Your task to perform on an android device: Add logitech g pro to the cart on ebay.com, then select checkout. Image 0: 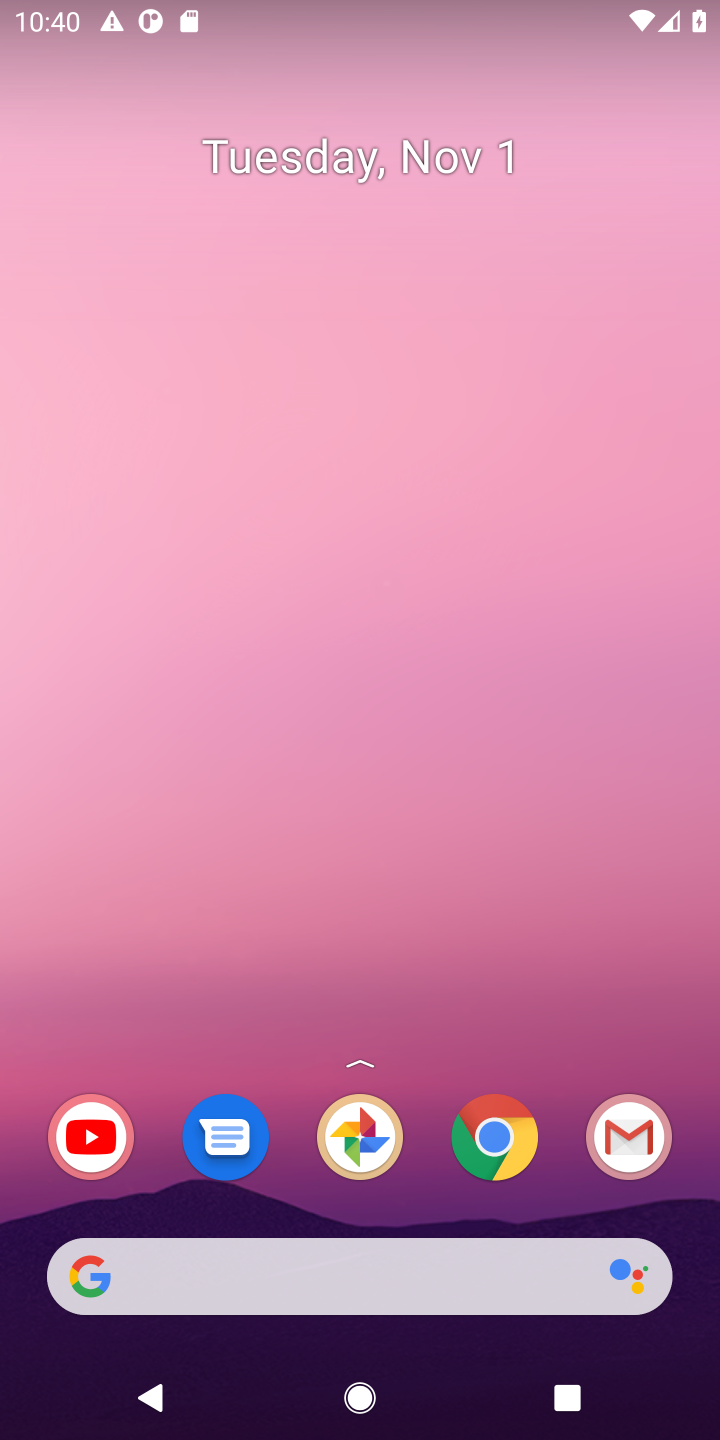
Step 0: click (374, 1263)
Your task to perform on an android device: Add logitech g pro to the cart on ebay.com, then select checkout. Image 1: 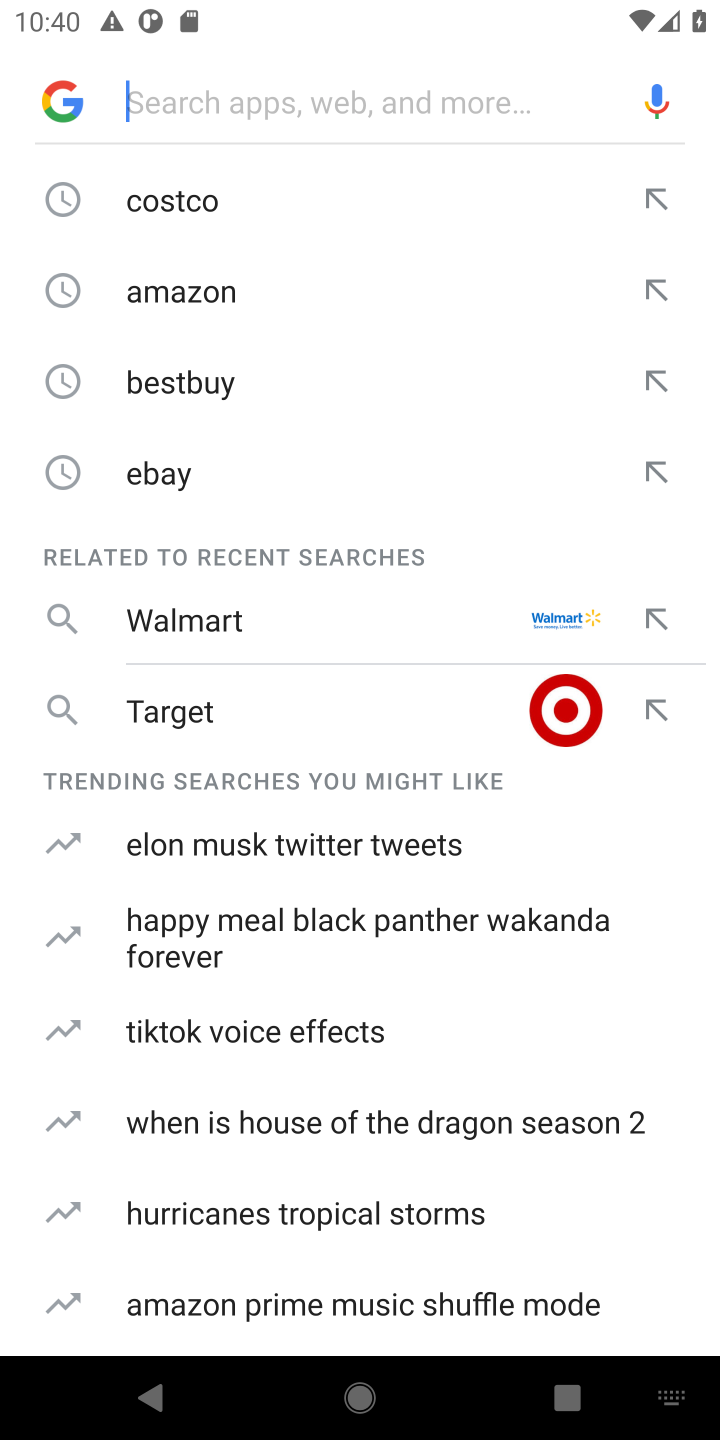
Step 1: click (160, 475)
Your task to perform on an android device: Add logitech g pro to the cart on ebay.com, then select checkout. Image 2: 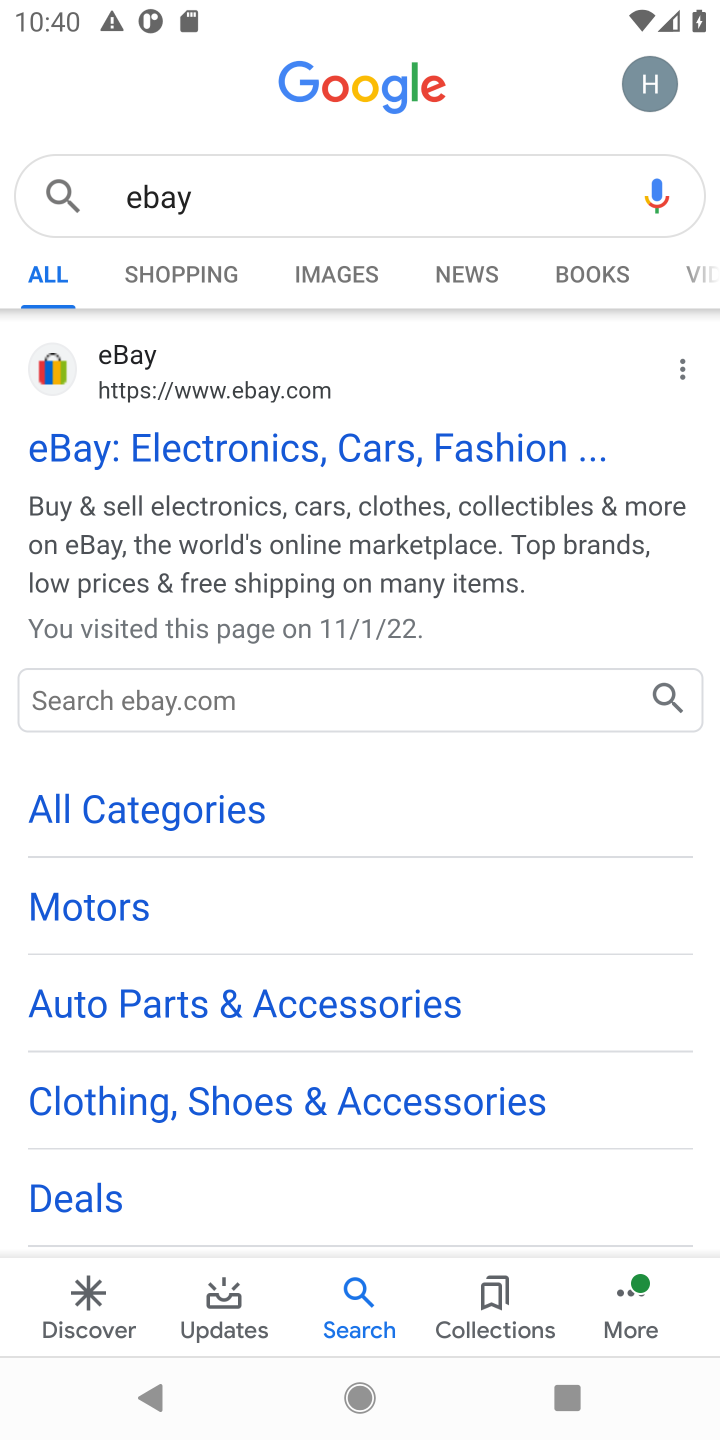
Step 2: click (131, 379)
Your task to perform on an android device: Add logitech g pro to the cart on ebay.com, then select checkout. Image 3: 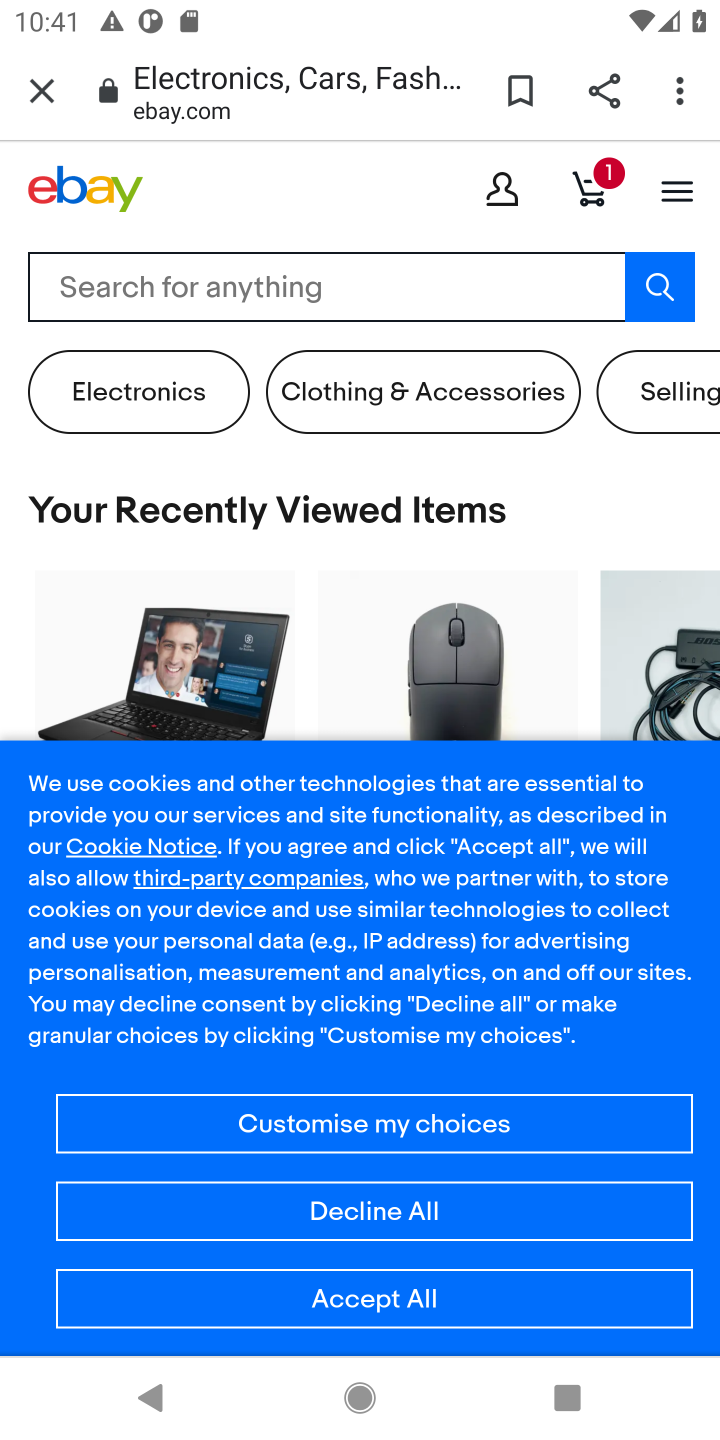
Step 3: click (367, 1202)
Your task to perform on an android device: Add logitech g pro to the cart on ebay.com, then select checkout. Image 4: 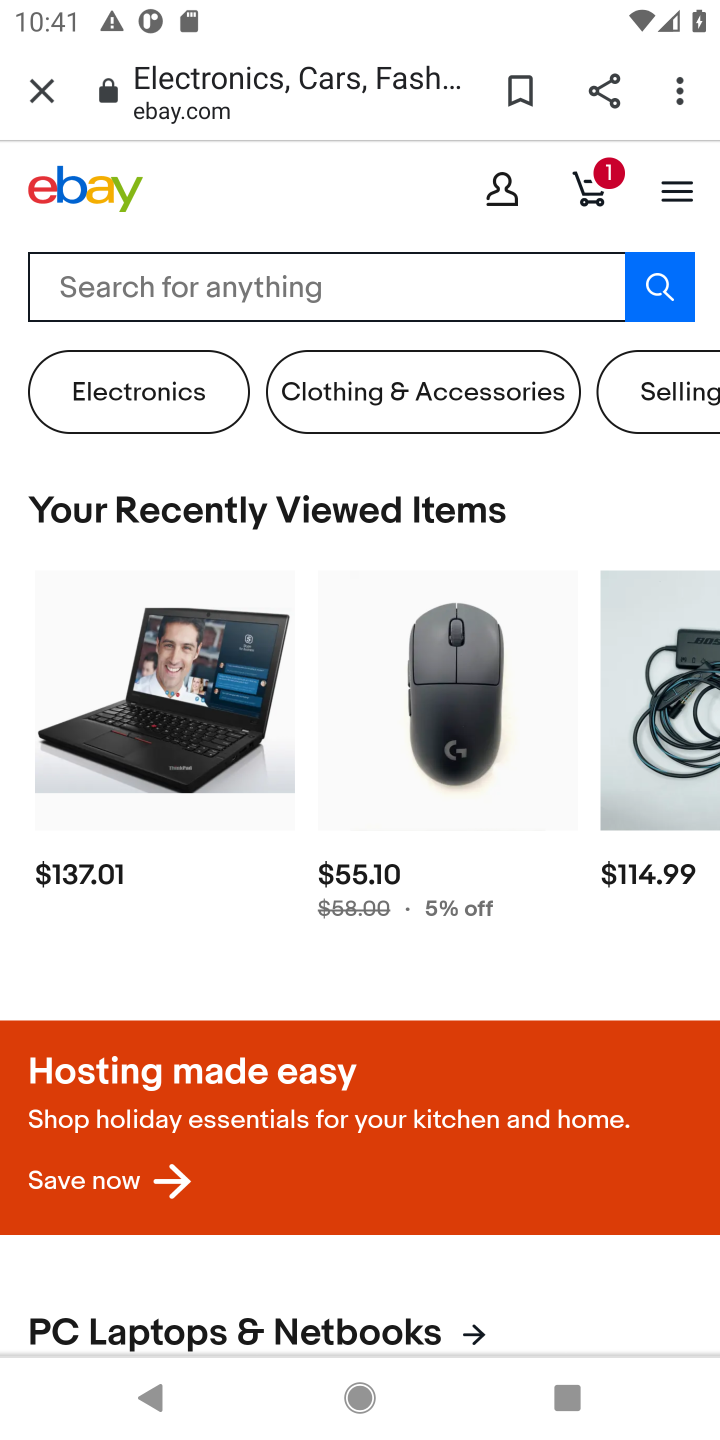
Step 4: click (228, 267)
Your task to perform on an android device: Add logitech g pro to the cart on ebay.com, then select checkout. Image 5: 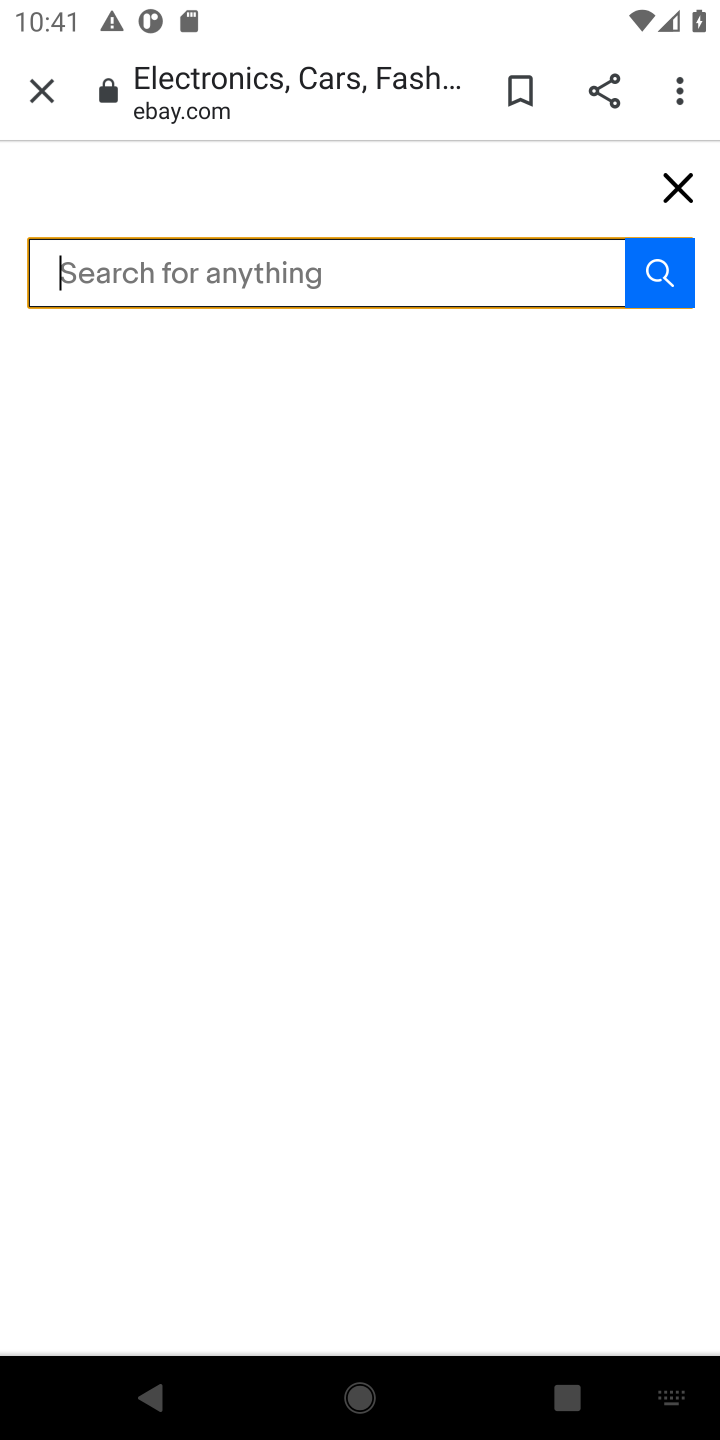
Step 5: type " logitech g pro "
Your task to perform on an android device: Add logitech g pro to the cart on ebay.com, then select checkout. Image 6: 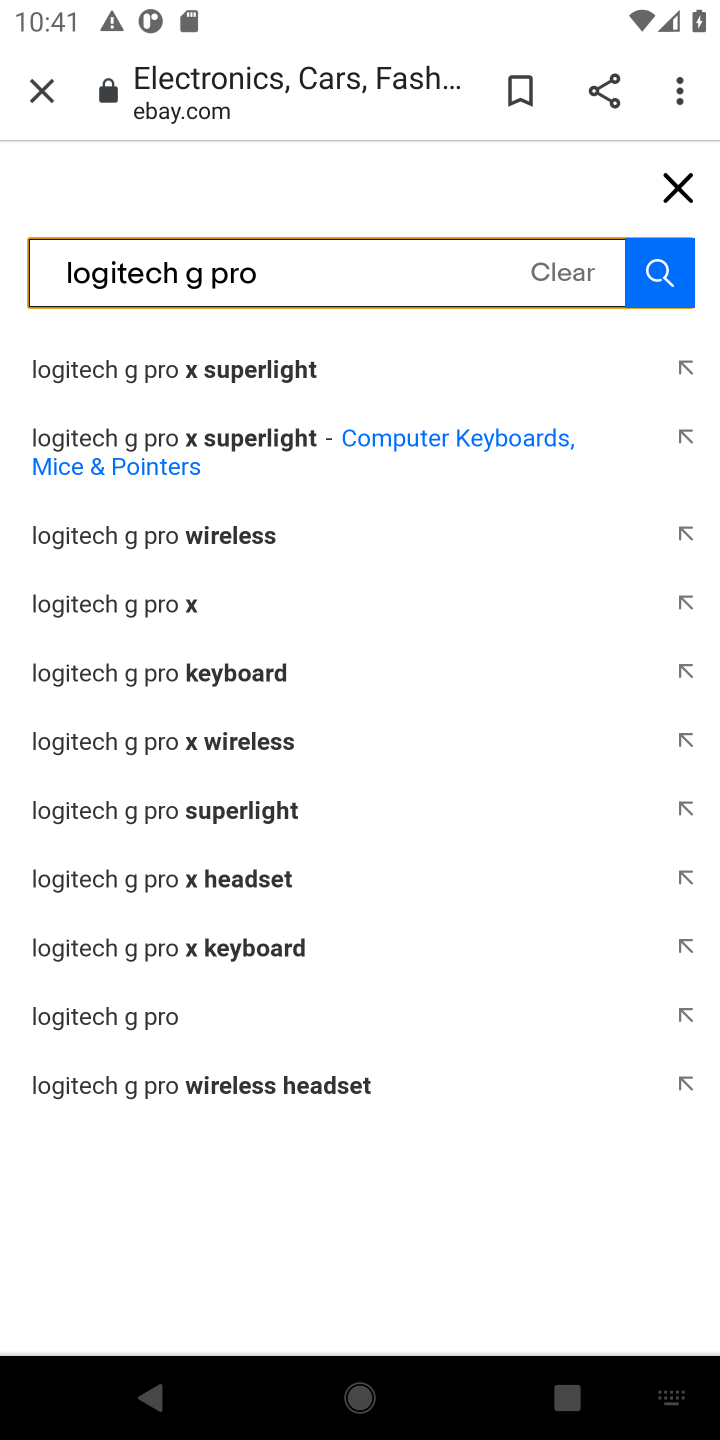
Step 6: click (156, 1027)
Your task to perform on an android device: Add logitech g pro to the cart on ebay.com, then select checkout. Image 7: 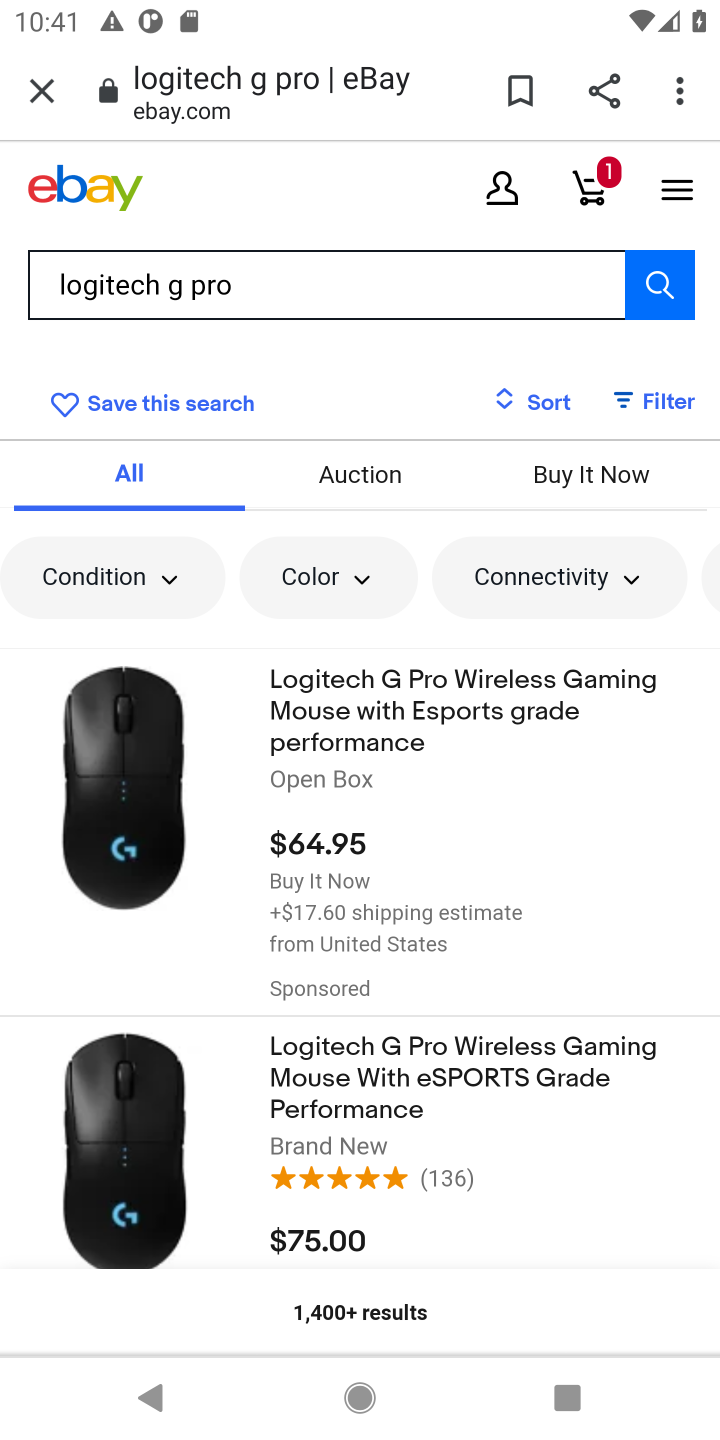
Step 7: click (427, 726)
Your task to perform on an android device: Add logitech g pro to the cart on ebay.com, then select checkout. Image 8: 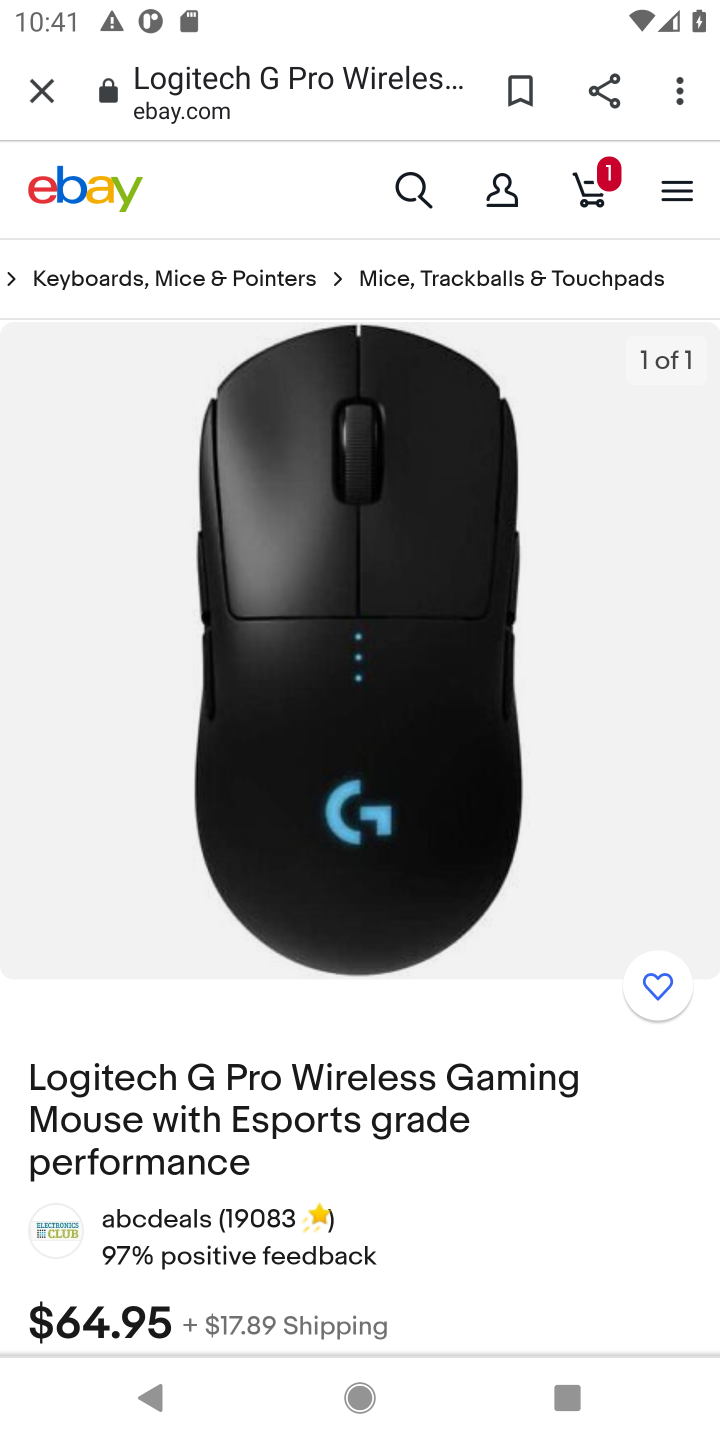
Step 8: drag from (520, 1173) to (534, 849)
Your task to perform on an android device: Add logitech g pro to the cart on ebay.com, then select checkout. Image 9: 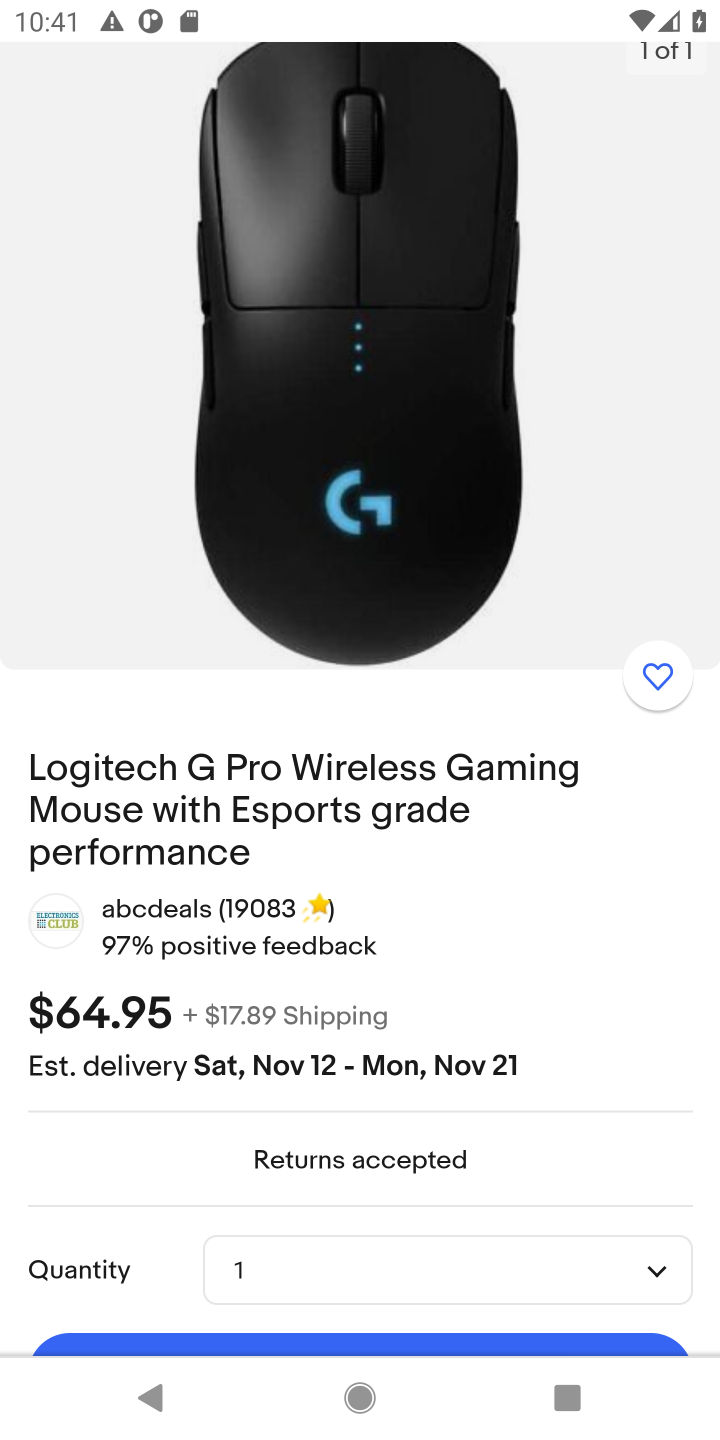
Step 9: drag from (507, 1108) to (488, 917)
Your task to perform on an android device: Add logitech g pro to the cart on ebay.com, then select checkout. Image 10: 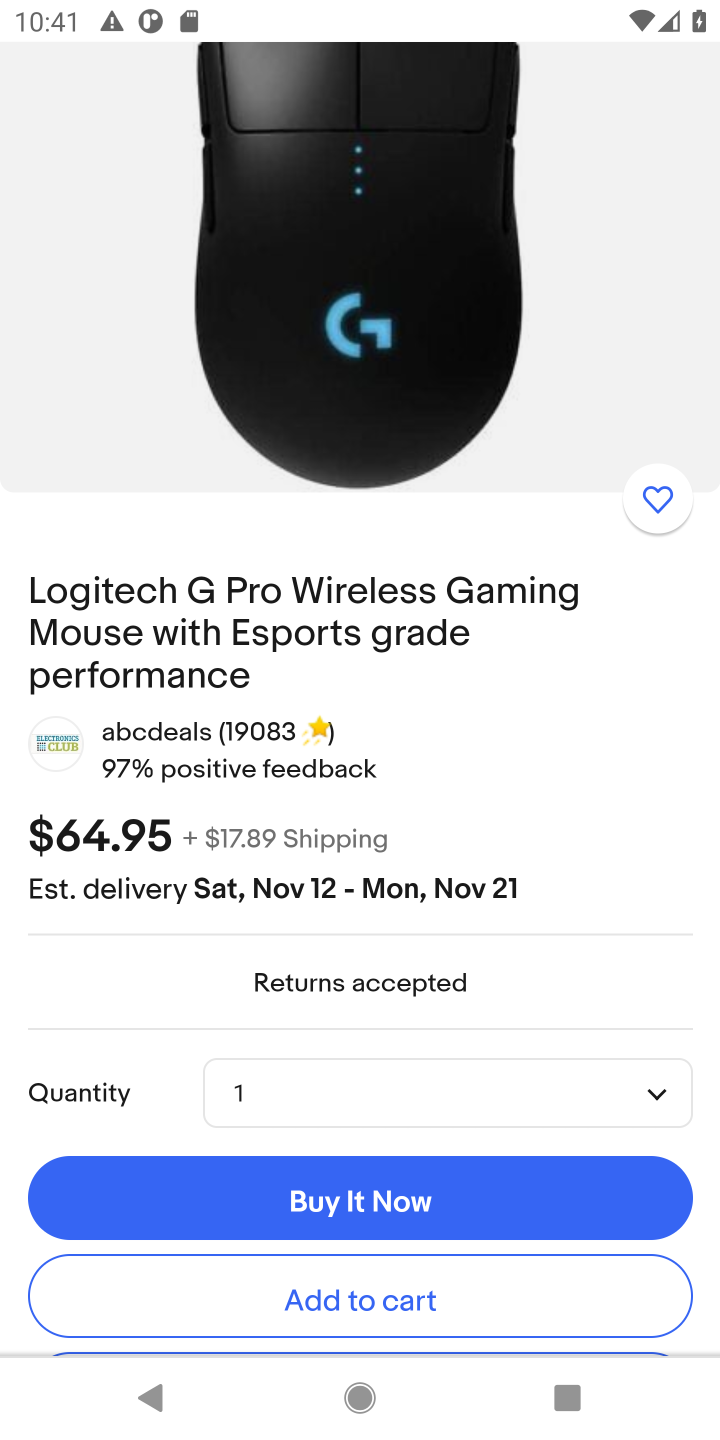
Step 10: click (350, 1289)
Your task to perform on an android device: Add logitech g pro to the cart on ebay.com, then select checkout. Image 11: 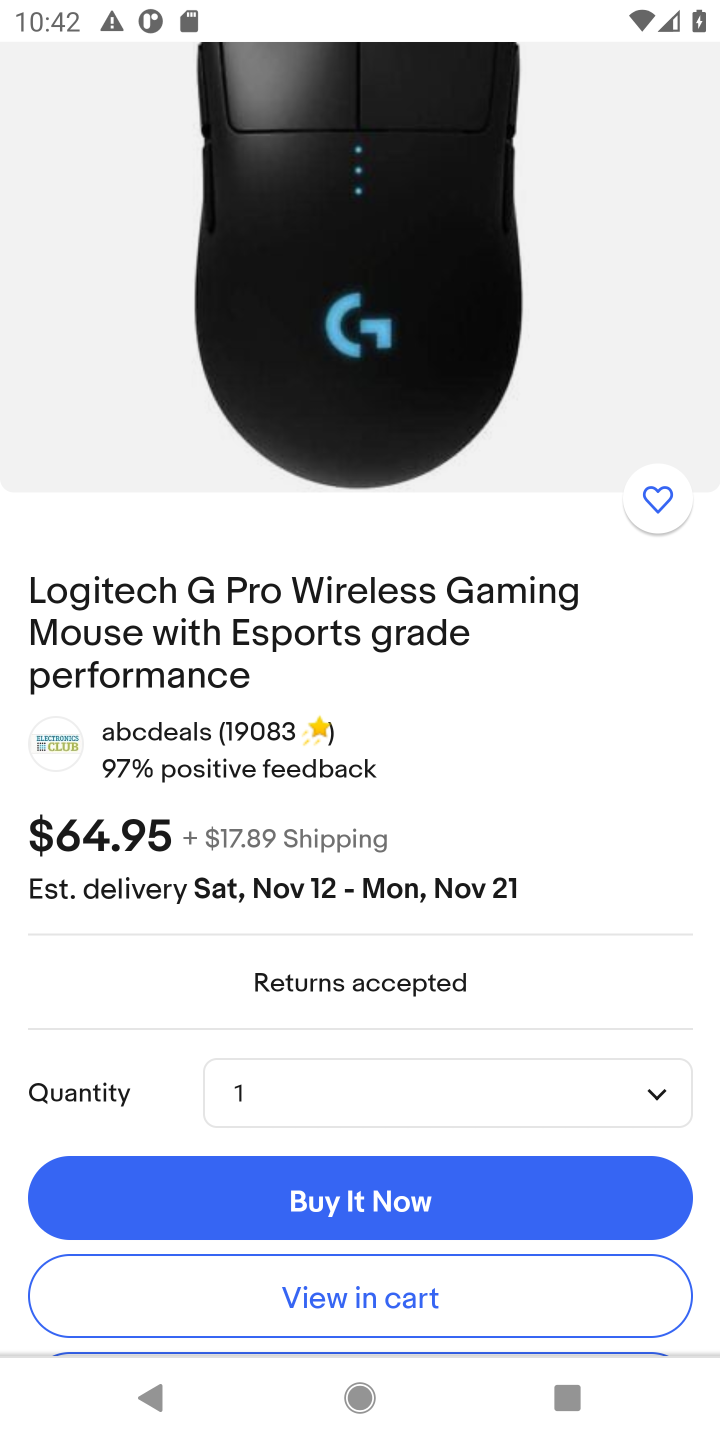
Step 11: click (383, 1291)
Your task to perform on an android device: Add logitech g pro to the cart on ebay.com, then select checkout. Image 12: 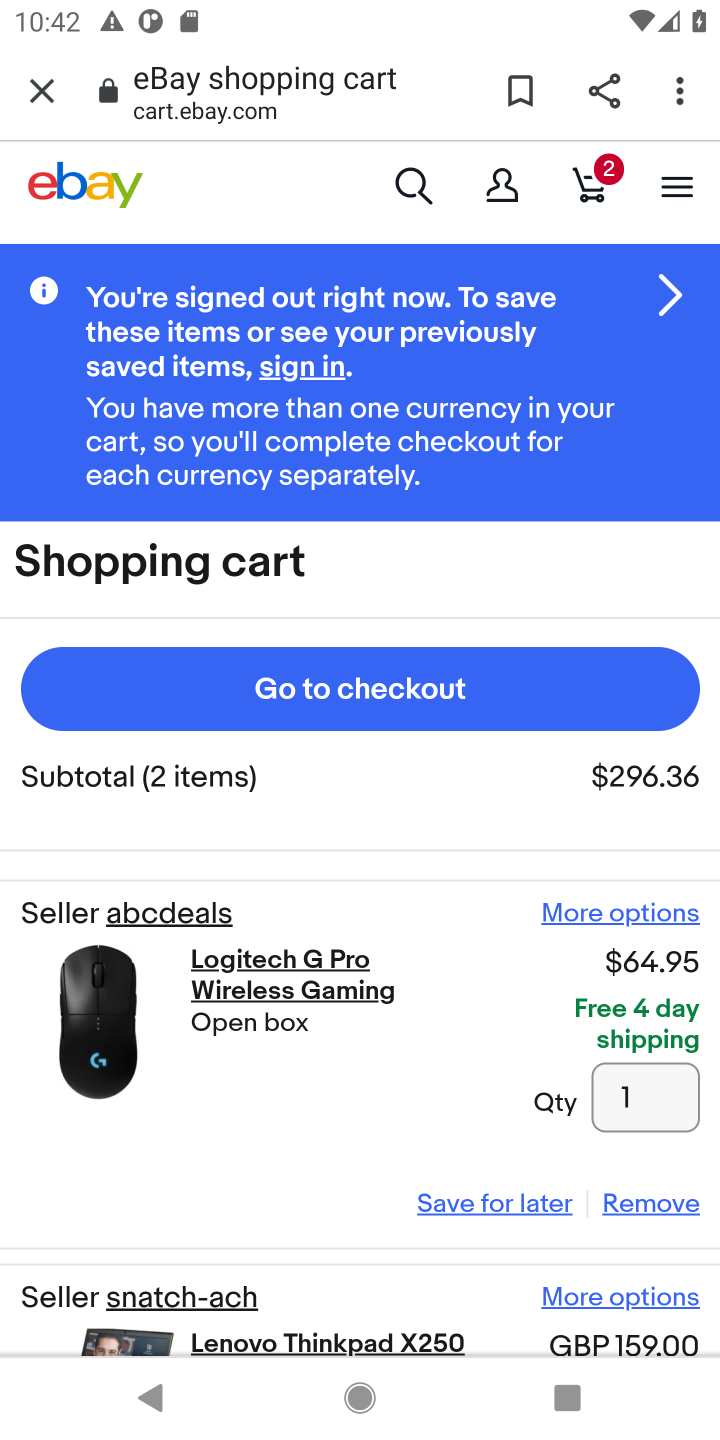
Step 12: click (347, 690)
Your task to perform on an android device: Add logitech g pro to the cart on ebay.com, then select checkout. Image 13: 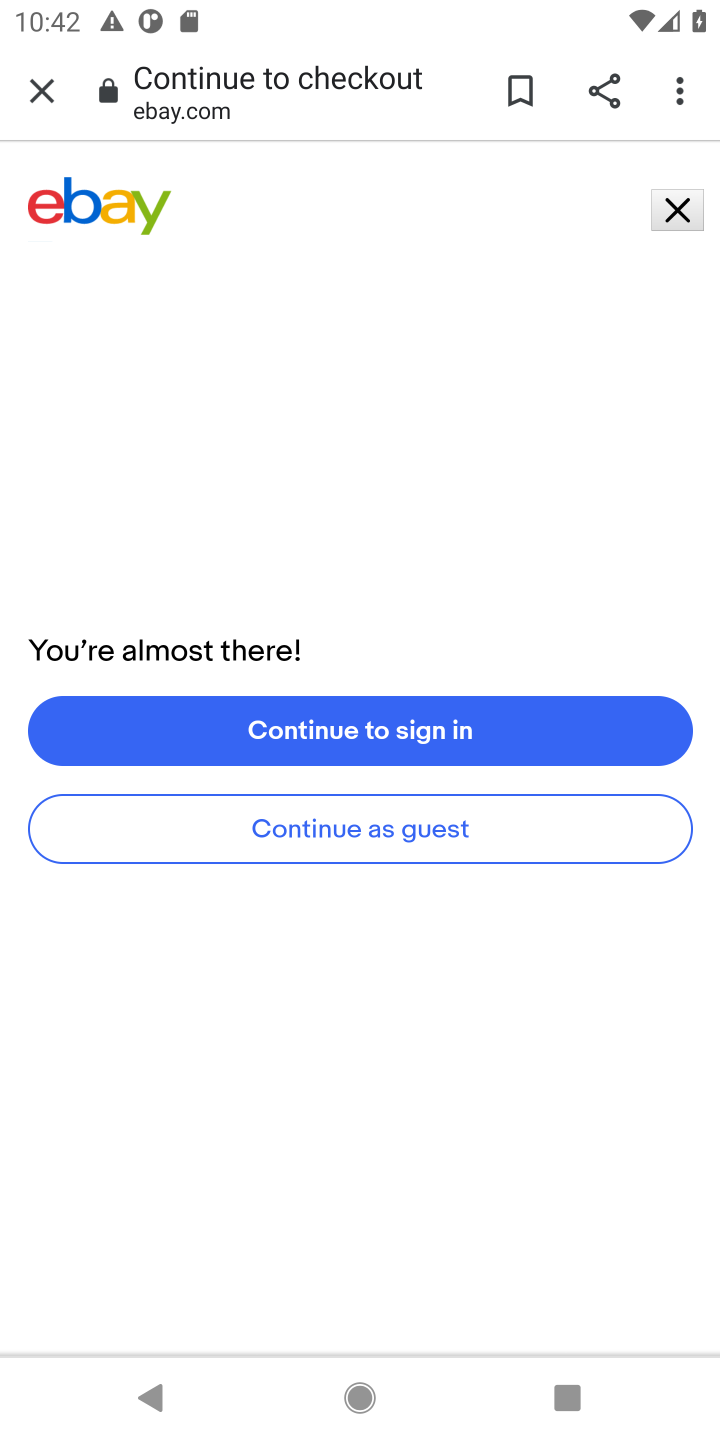
Step 13: task complete